Your task to perform on an android device: change the clock style Image 0: 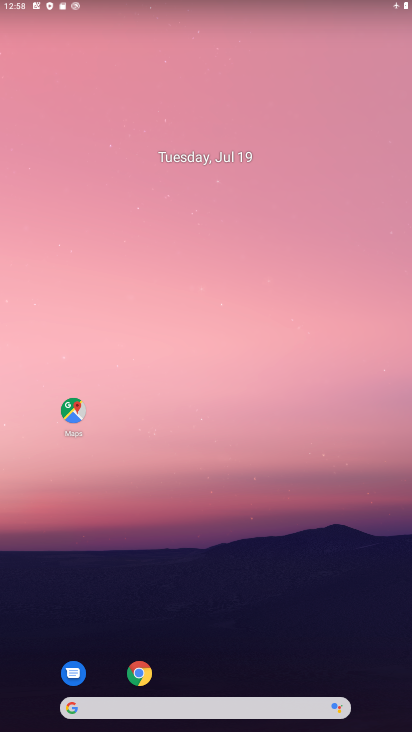
Step 0: drag from (173, 228) to (117, 24)
Your task to perform on an android device: change the clock style Image 1: 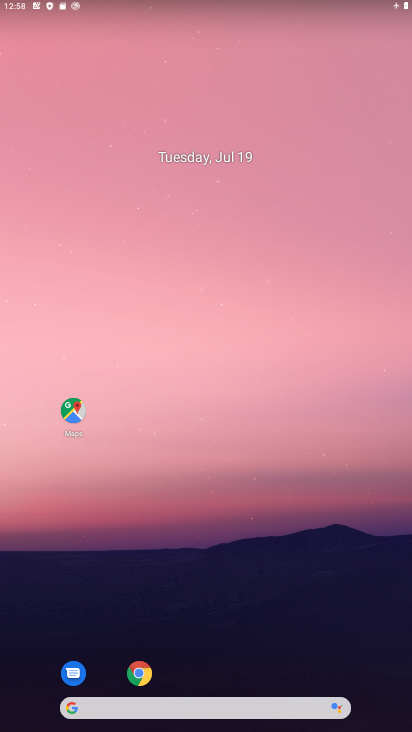
Step 1: drag from (199, 284) to (144, 102)
Your task to perform on an android device: change the clock style Image 2: 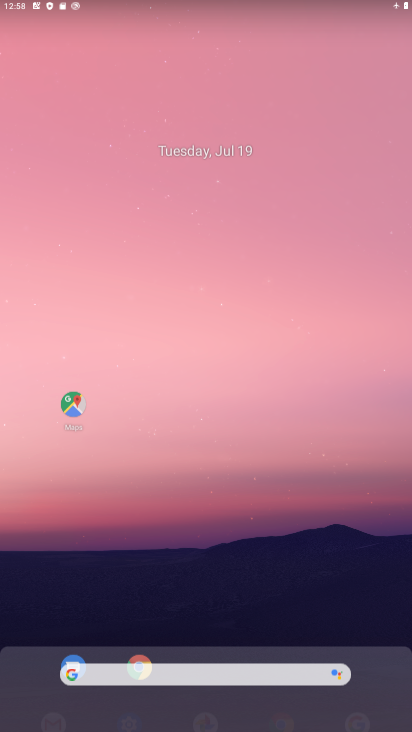
Step 2: click (97, 177)
Your task to perform on an android device: change the clock style Image 3: 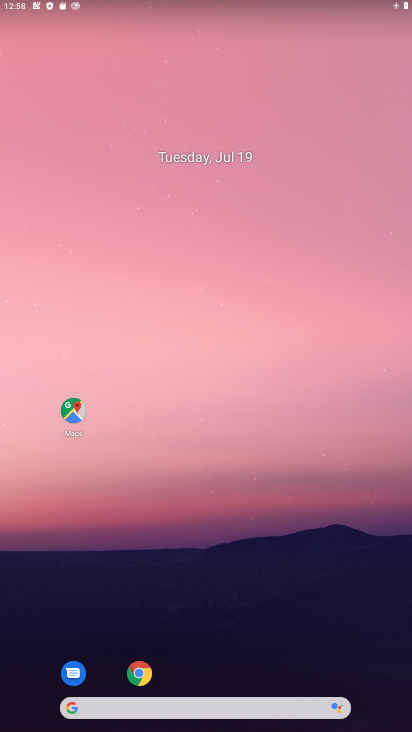
Step 3: drag from (256, 460) to (169, 4)
Your task to perform on an android device: change the clock style Image 4: 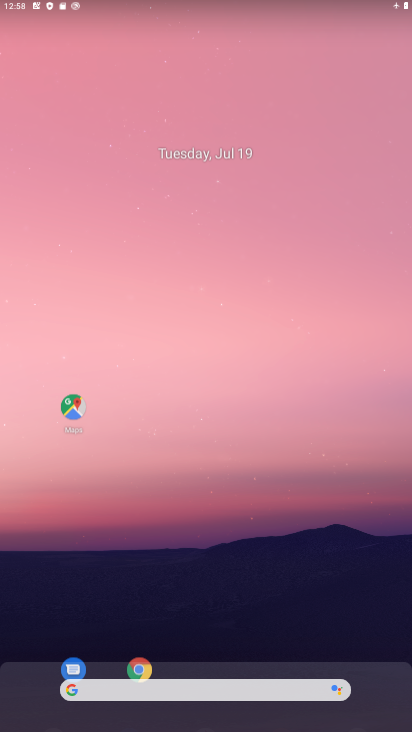
Step 4: drag from (199, 545) to (191, 149)
Your task to perform on an android device: change the clock style Image 5: 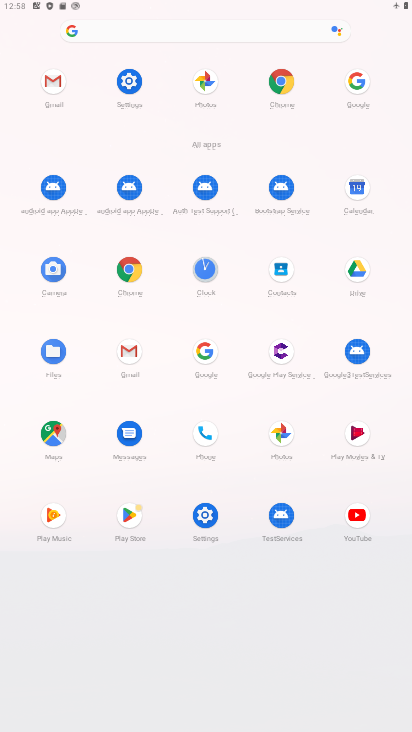
Step 5: drag from (195, 449) to (117, 104)
Your task to perform on an android device: change the clock style Image 6: 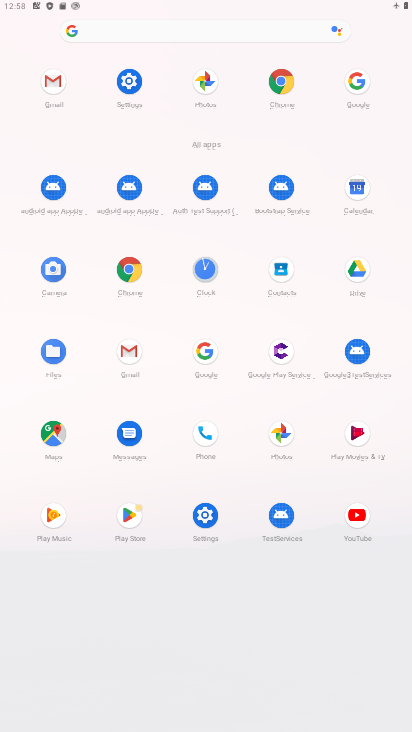
Step 6: click (206, 270)
Your task to perform on an android device: change the clock style Image 7: 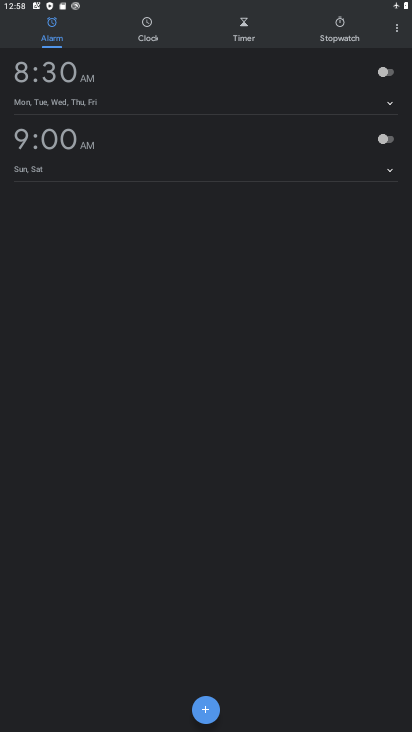
Step 7: click (208, 282)
Your task to perform on an android device: change the clock style Image 8: 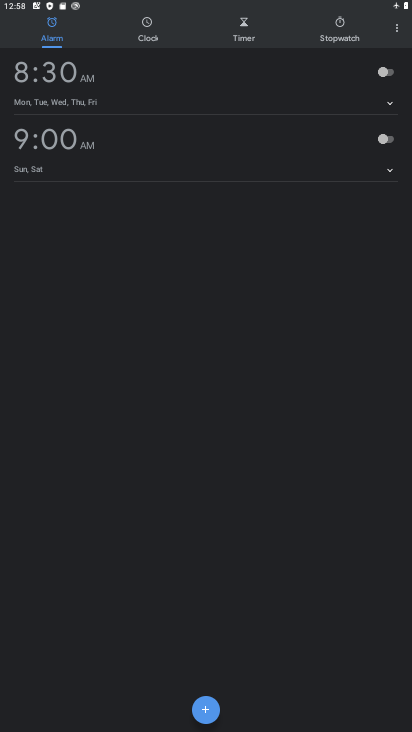
Step 8: click (404, 31)
Your task to perform on an android device: change the clock style Image 9: 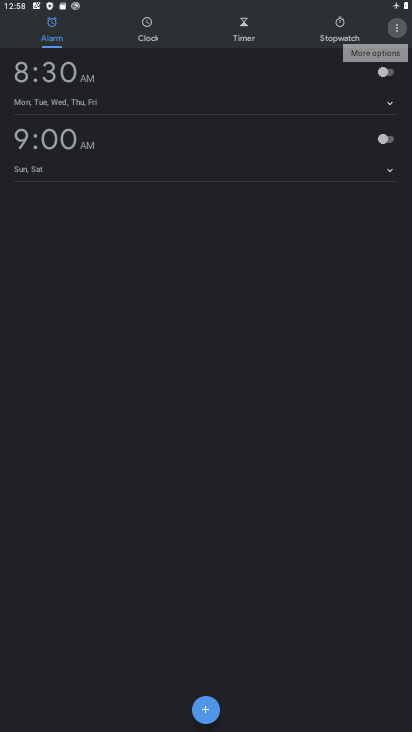
Step 9: click (404, 29)
Your task to perform on an android device: change the clock style Image 10: 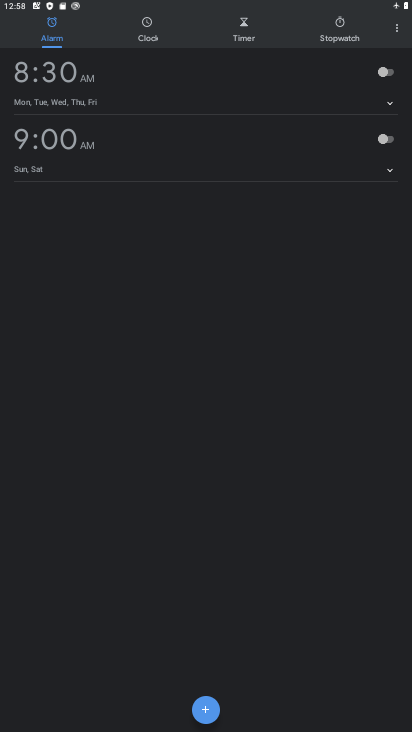
Step 10: click (398, 32)
Your task to perform on an android device: change the clock style Image 11: 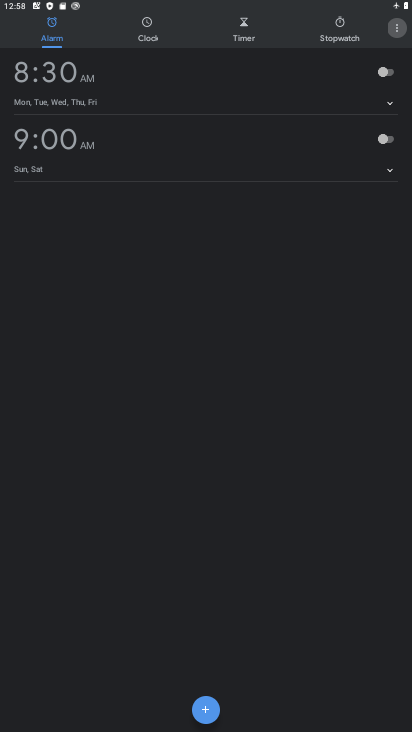
Step 11: click (398, 32)
Your task to perform on an android device: change the clock style Image 12: 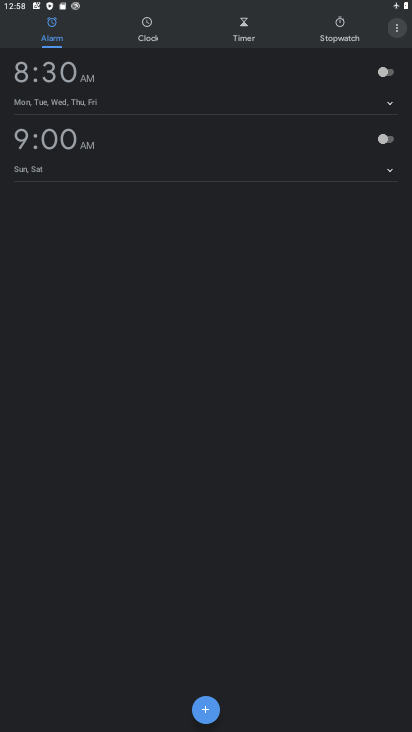
Step 12: click (399, 33)
Your task to perform on an android device: change the clock style Image 13: 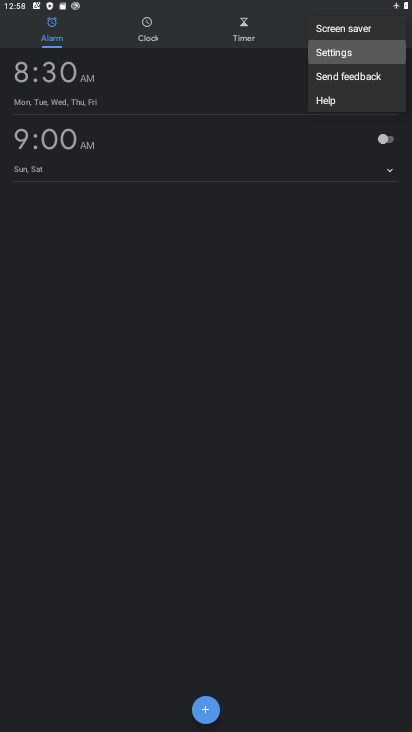
Step 13: click (399, 33)
Your task to perform on an android device: change the clock style Image 14: 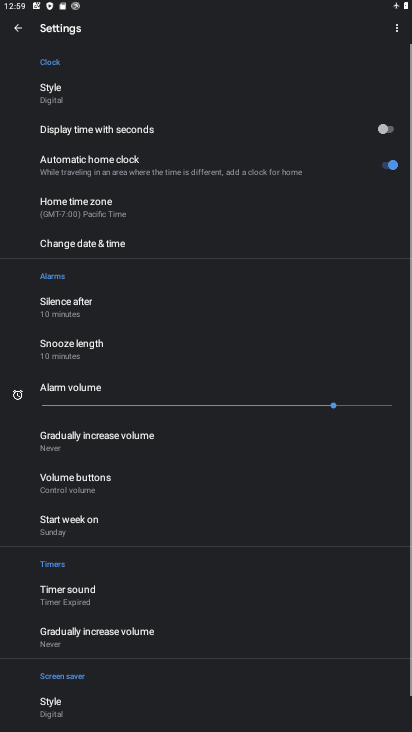
Step 14: click (332, 60)
Your task to perform on an android device: change the clock style Image 15: 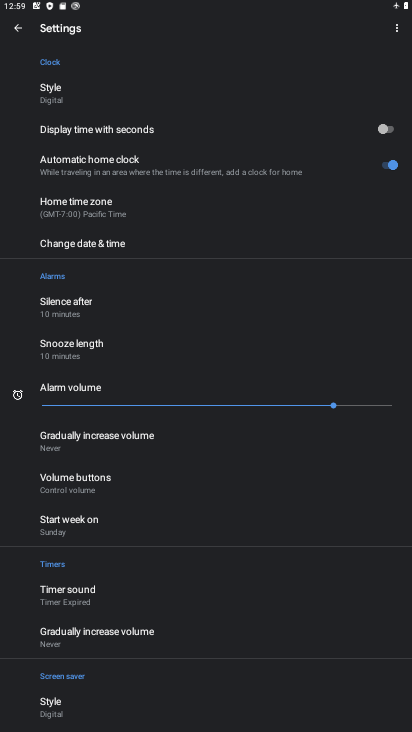
Step 15: click (54, 90)
Your task to perform on an android device: change the clock style Image 16: 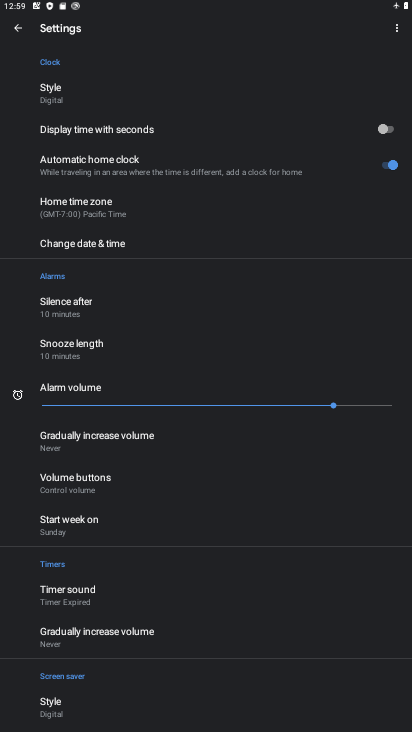
Step 16: click (53, 91)
Your task to perform on an android device: change the clock style Image 17: 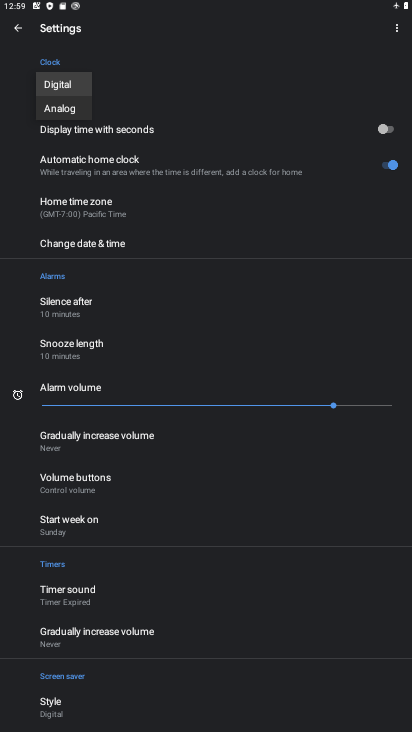
Step 17: click (64, 109)
Your task to perform on an android device: change the clock style Image 18: 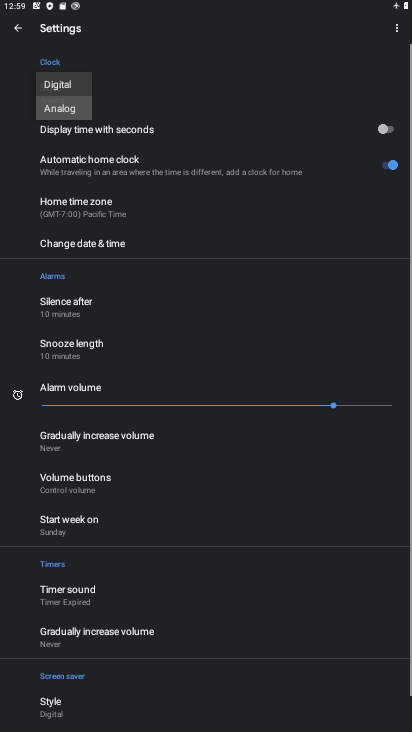
Step 18: click (64, 109)
Your task to perform on an android device: change the clock style Image 19: 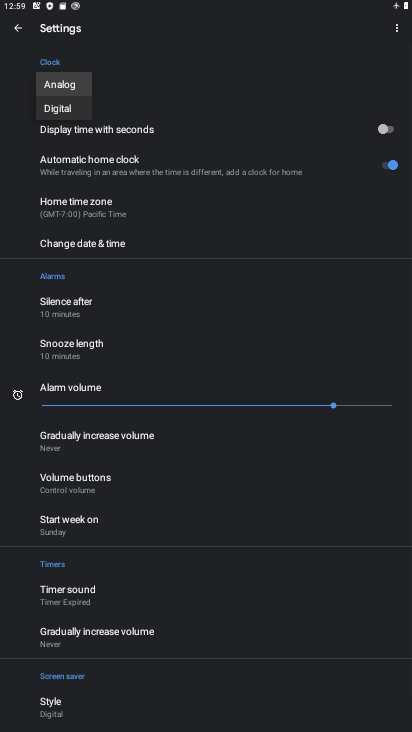
Step 19: task complete